Your task to perform on an android device: open app "Google Play Music" Image 0: 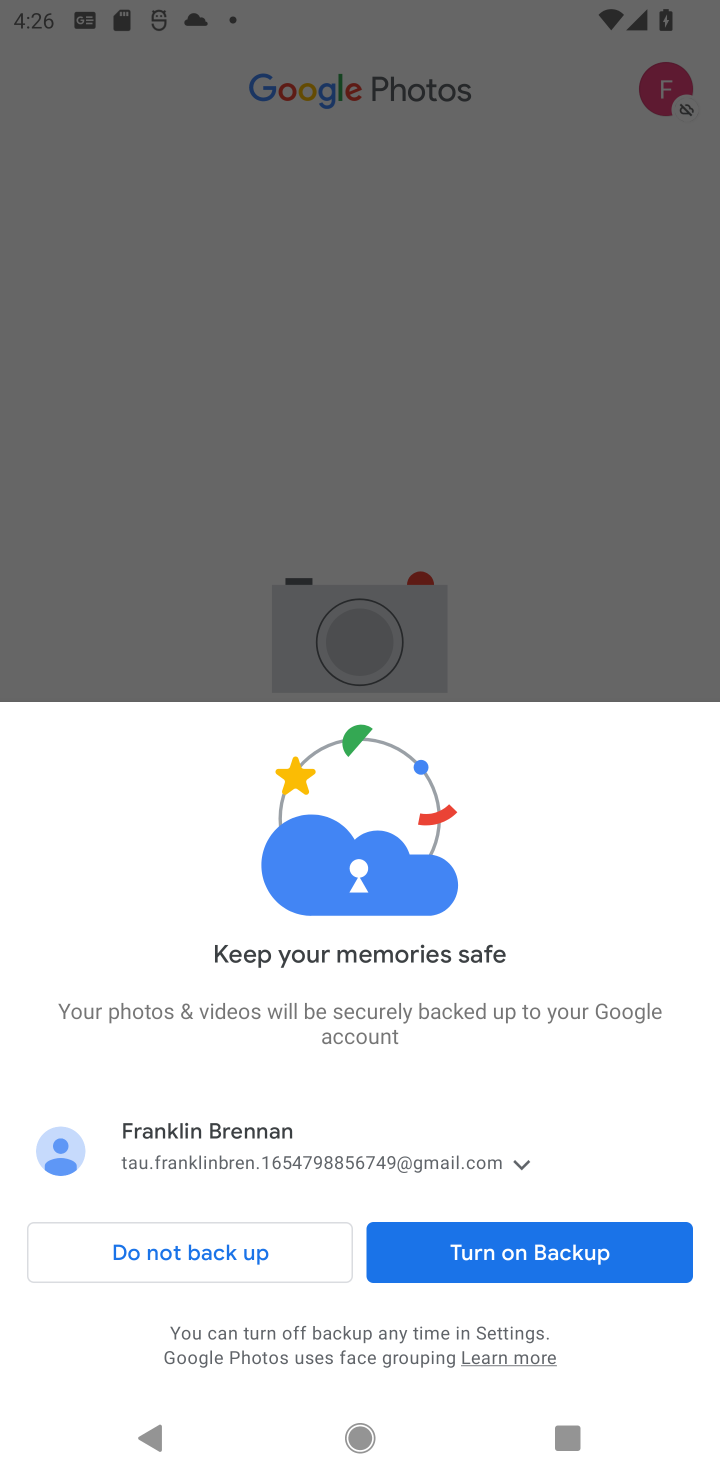
Step 0: press home button
Your task to perform on an android device: open app "Google Play Music" Image 1: 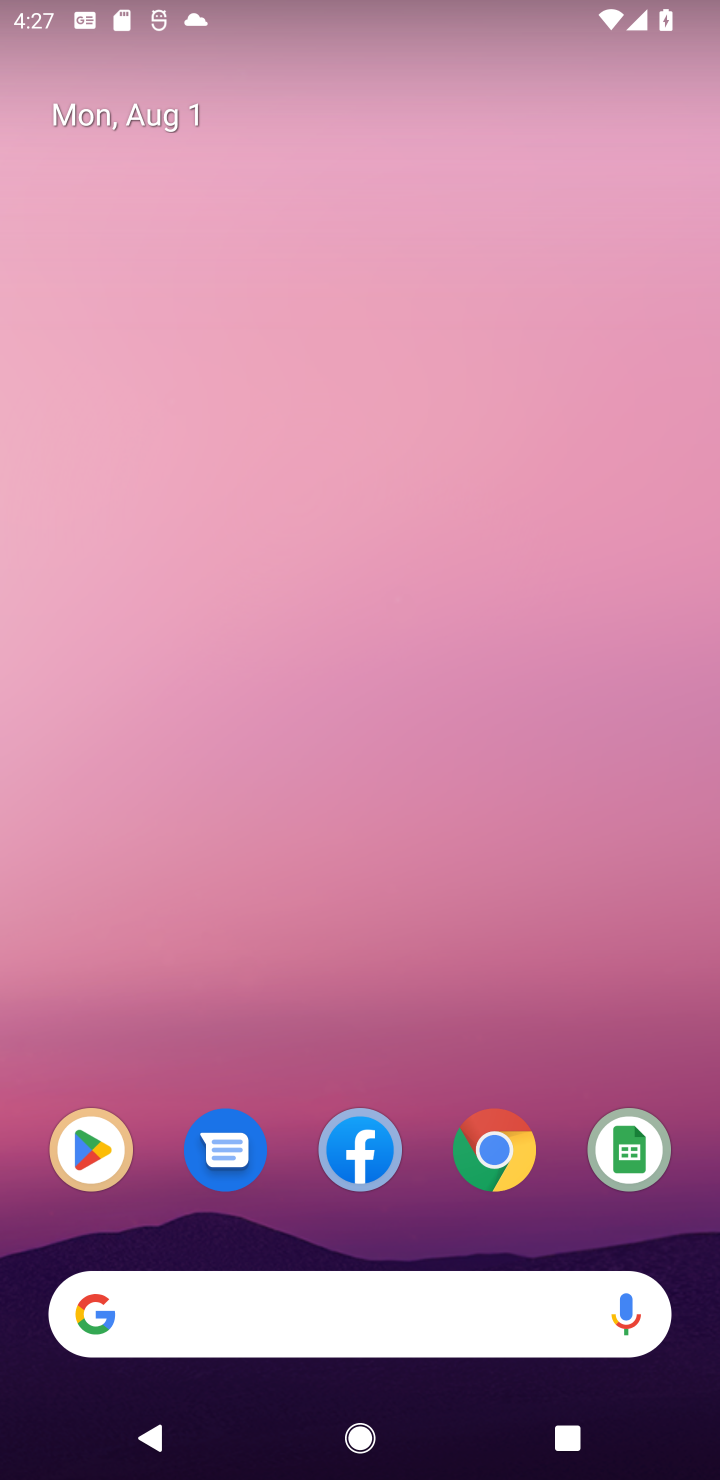
Step 1: click (90, 1168)
Your task to perform on an android device: open app "Google Play Music" Image 2: 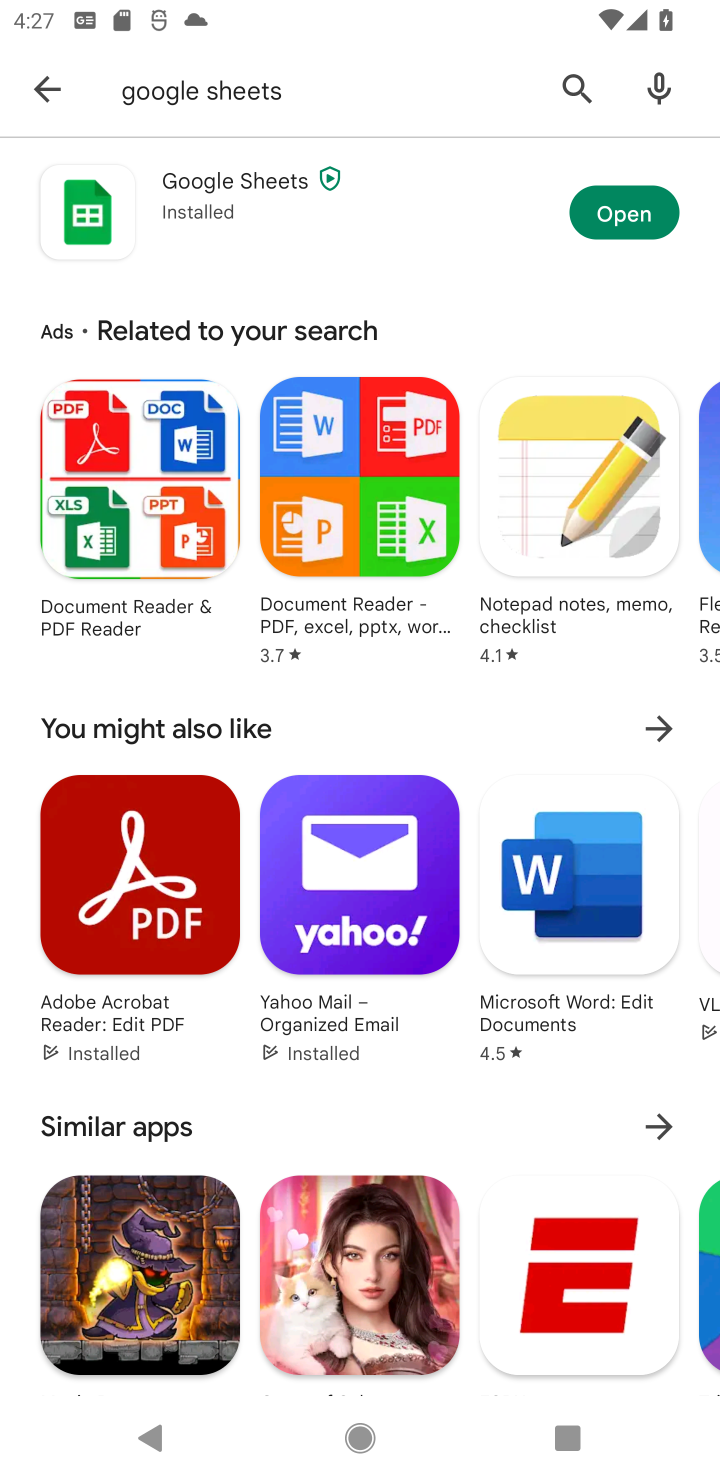
Step 2: click (562, 89)
Your task to perform on an android device: open app "Google Play Music" Image 3: 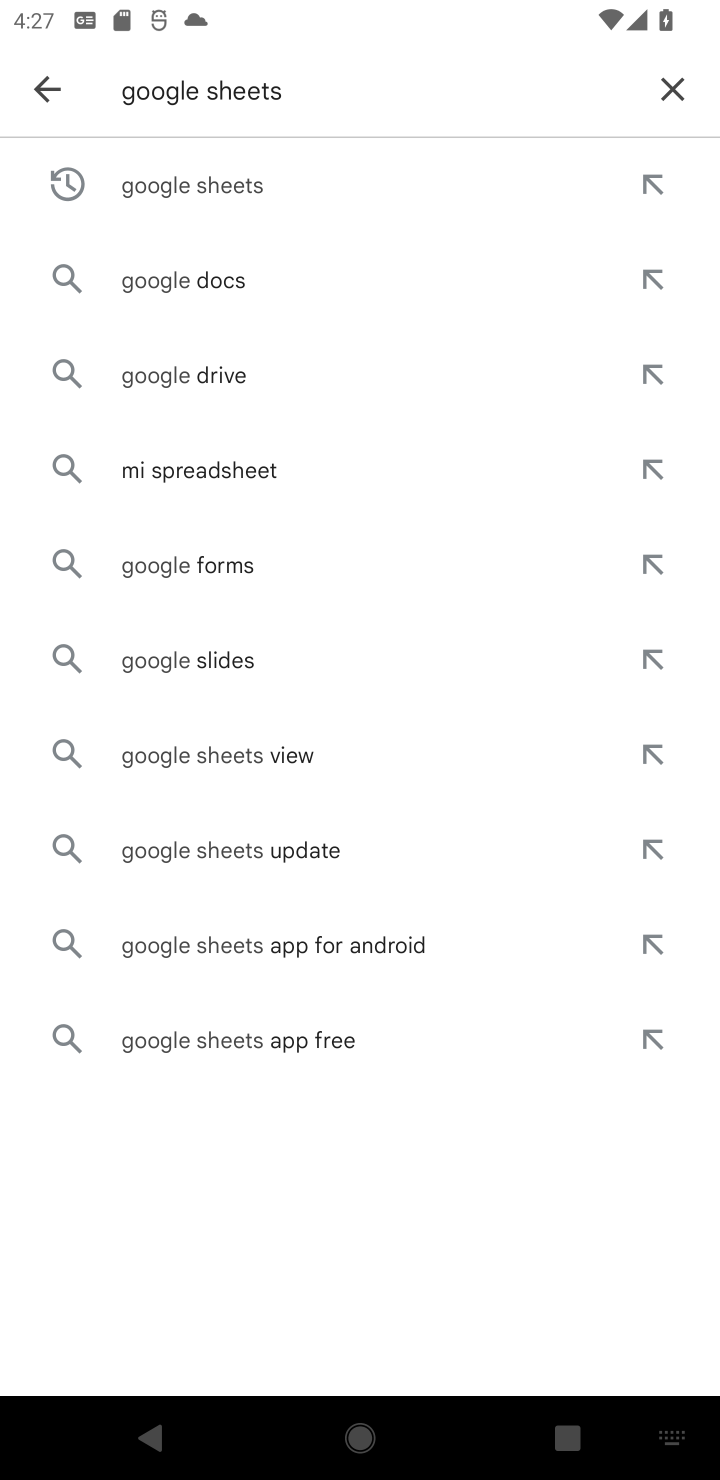
Step 3: click (686, 90)
Your task to perform on an android device: open app "Google Play Music" Image 4: 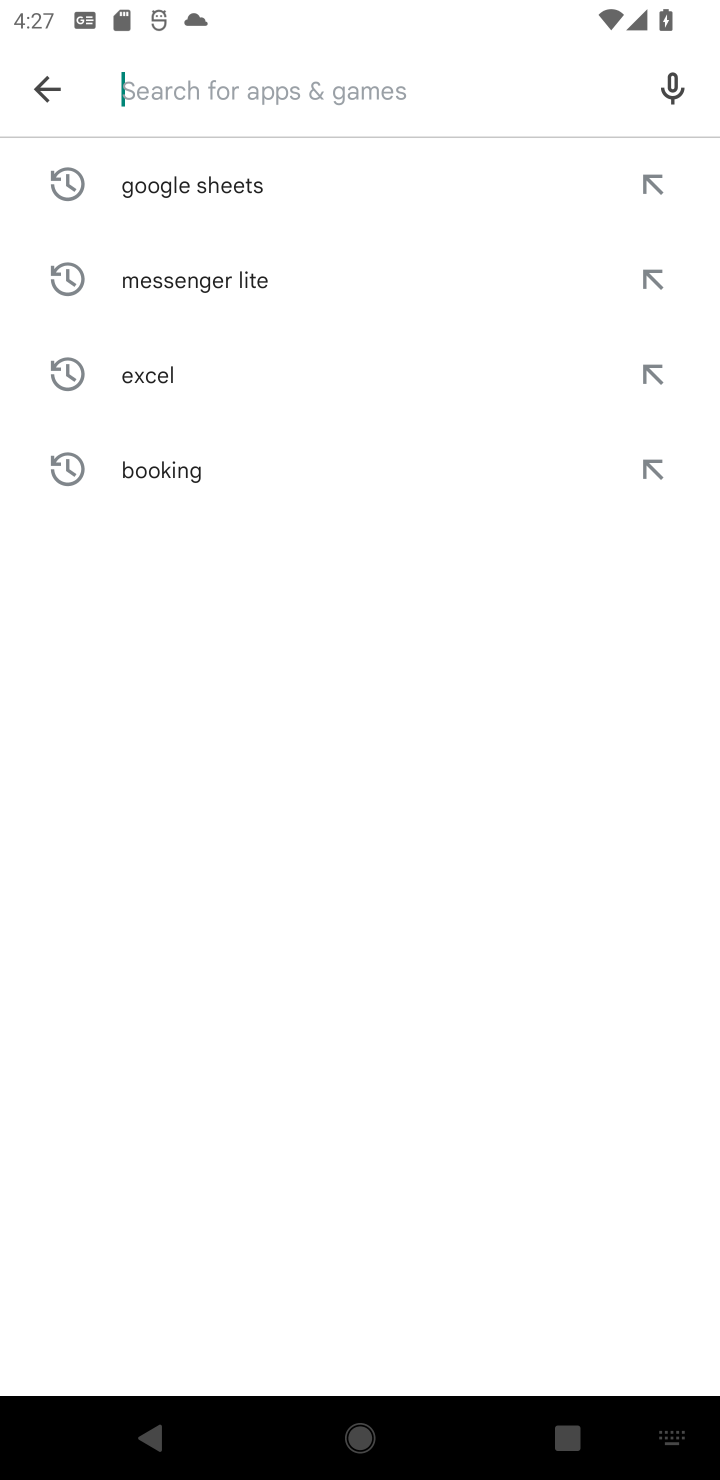
Step 4: type "google play music"
Your task to perform on an android device: open app "Google Play Music" Image 5: 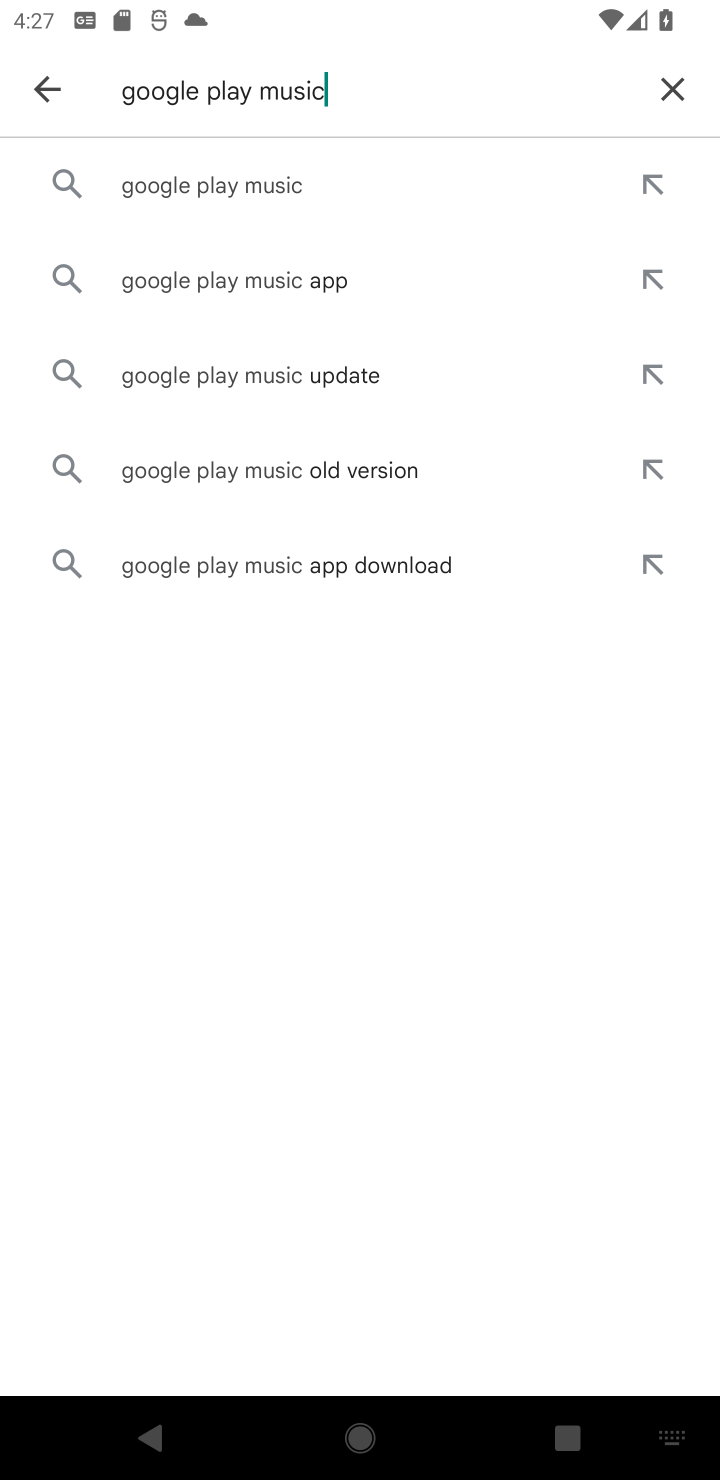
Step 5: click (296, 155)
Your task to perform on an android device: open app "Google Play Music" Image 6: 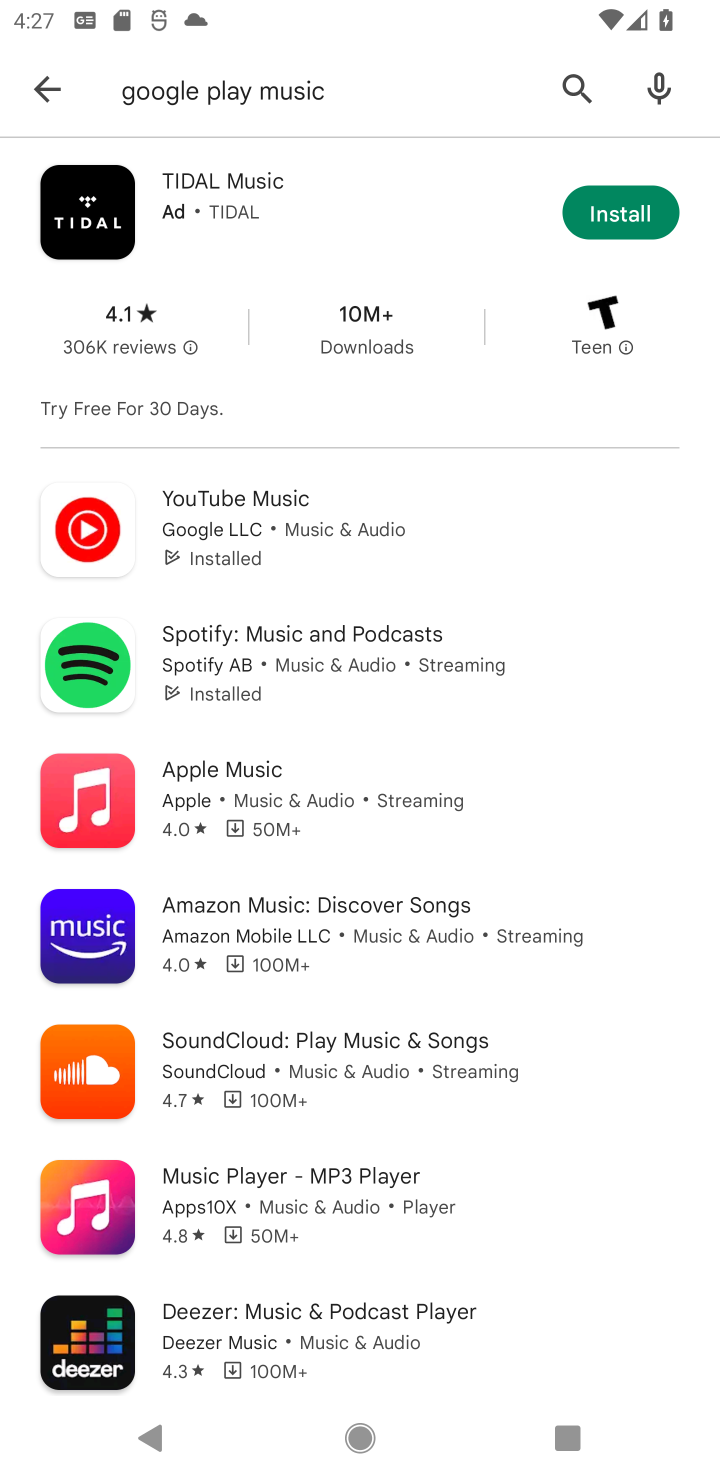
Step 6: task complete